Your task to perform on an android device: Open my contact list Image 0: 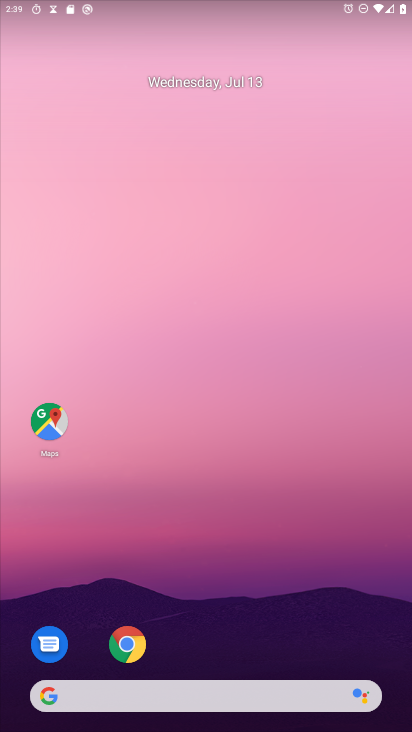
Step 0: press home button
Your task to perform on an android device: Open my contact list Image 1: 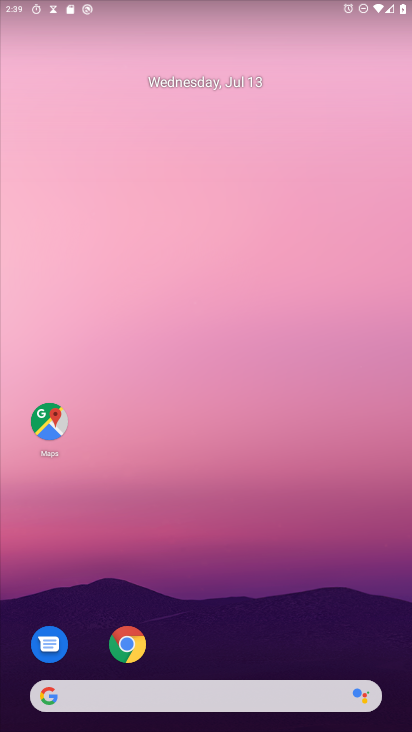
Step 1: drag from (232, 619) to (268, 128)
Your task to perform on an android device: Open my contact list Image 2: 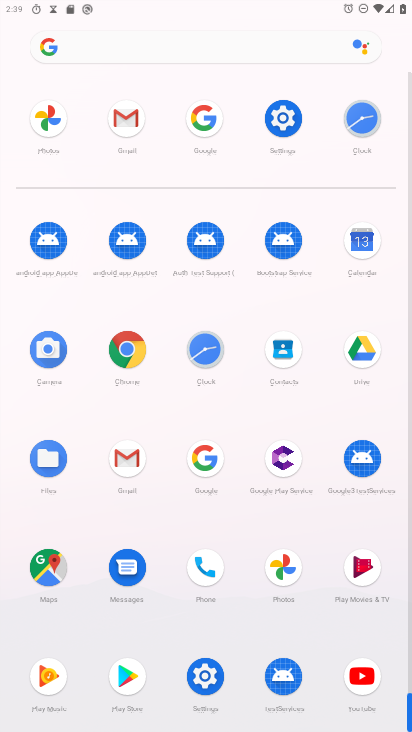
Step 2: click (284, 357)
Your task to perform on an android device: Open my contact list Image 3: 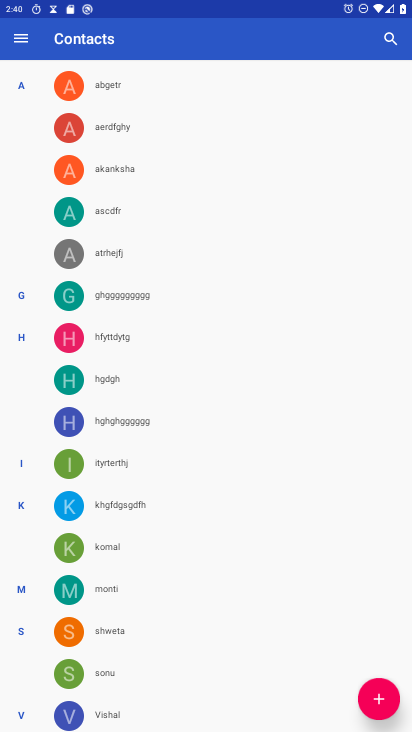
Step 3: task complete